Your task to perform on an android device: turn on airplane mode Image 0: 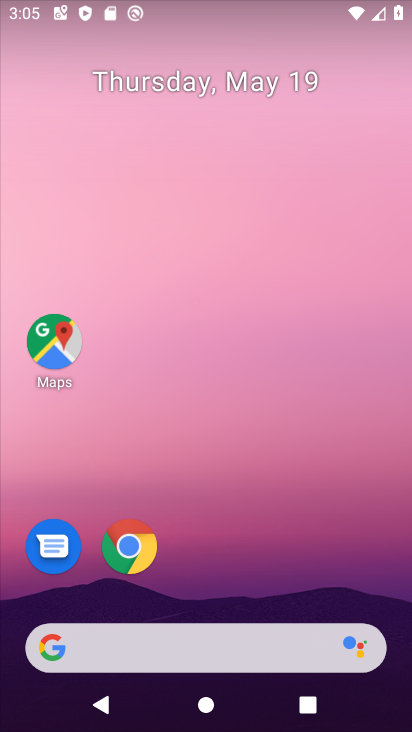
Step 0: drag from (248, 559) to (248, 129)
Your task to perform on an android device: turn on airplane mode Image 1: 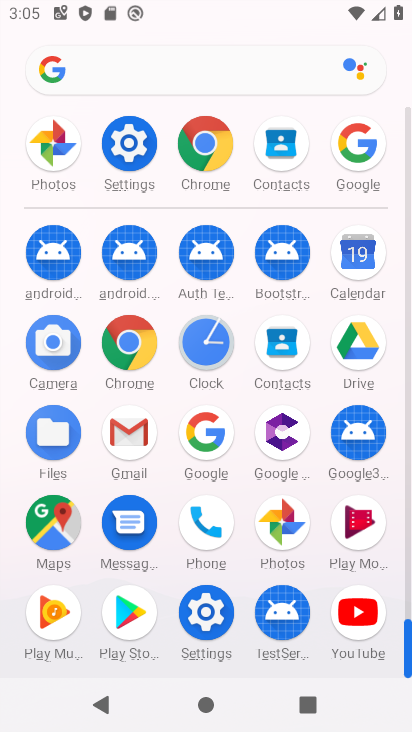
Step 1: click (131, 144)
Your task to perform on an android device: turn on airplane mode Image 2: 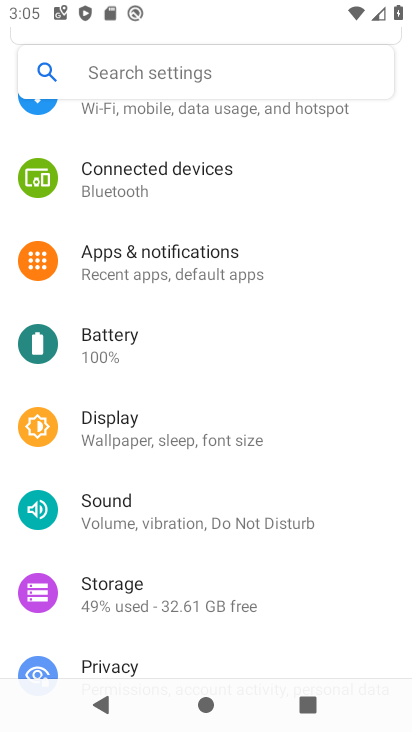
Step 2: drag from (178, 351) to (182, 430)
Your task to perform on an android device: turn on airplane mode Image 3: 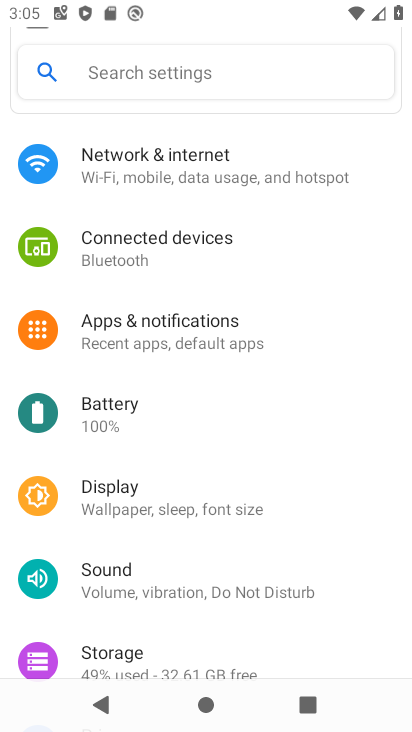
Step 3: drag from (167, 288) to (205, 432)
Your task to perform on an android device: turn on airplane mode Image 4: 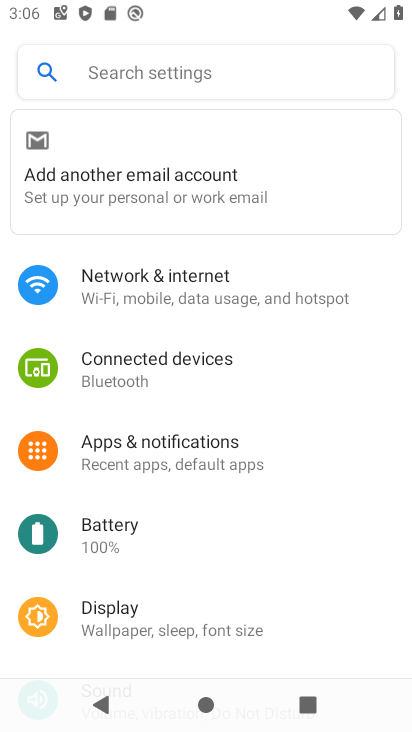
Step 4: click (156, 293)
Your task to perform on an android device: turn on airplane mode Image 5: 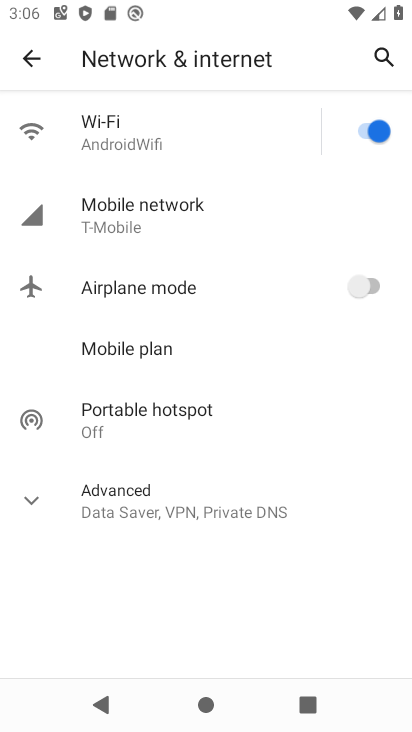
Step 5: click (364, 286)
Your task to perform on an android device: turn on airplane mode Image 6: 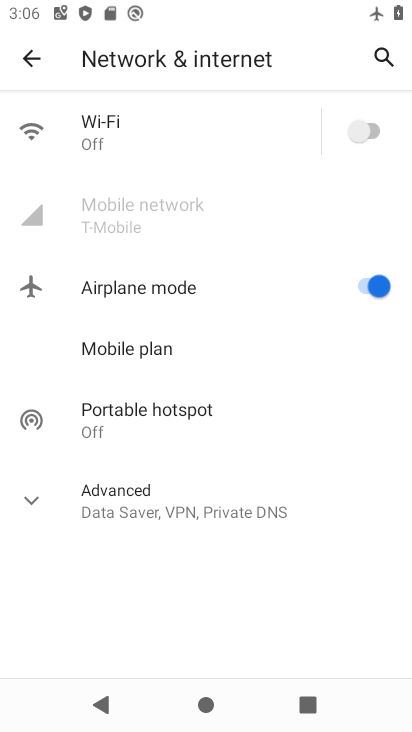
Step 6: task complete